Your task to perform on an android device: Open calendar and show me the third week of next month Image 0: 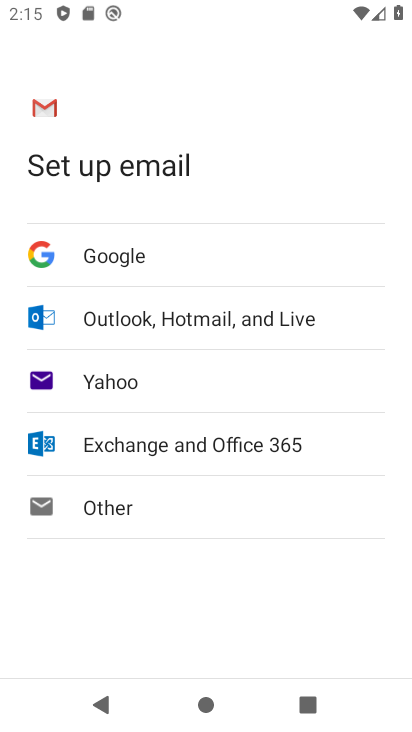
Step 0: press home button
Your task to perform on an android device: Open calendar and show me the third week of next month Image 1: 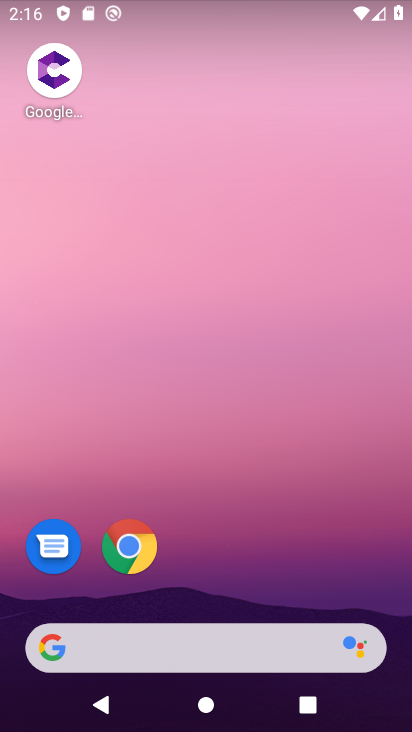
Step 1: drag from (195, 599) to (100, 82)
Your task to perform on an android device: Open calendar and show me the third week of next month Image 2: 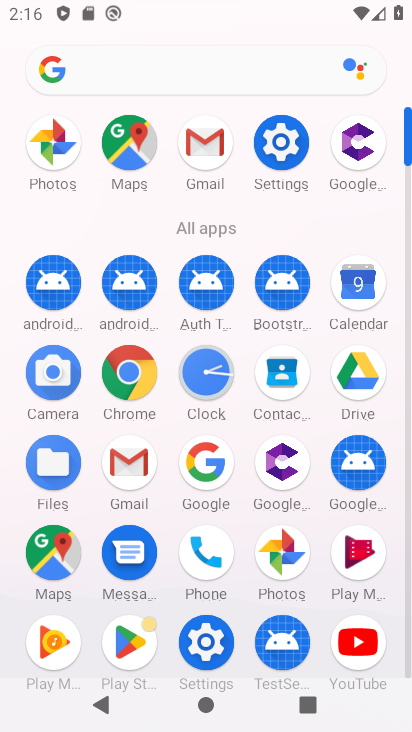
Step 2: click (350, 260)
Your task to perform on an android device: Open calendar and show me the third week of next month Image 3: 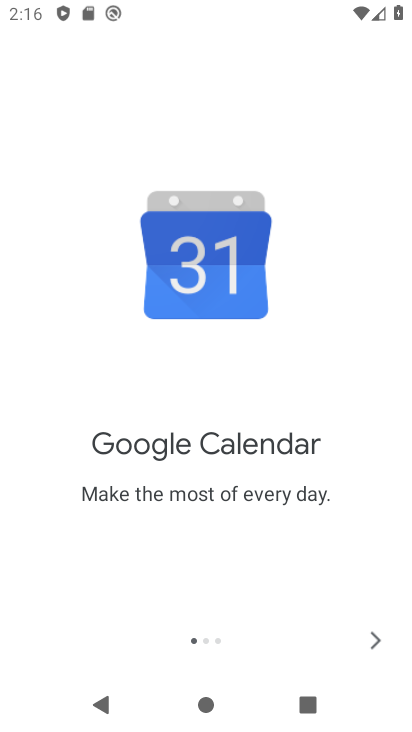
Step 3: click (371, 630)
Your task to perform on an android device: Open calendar and show me the third week of next month Image 4: 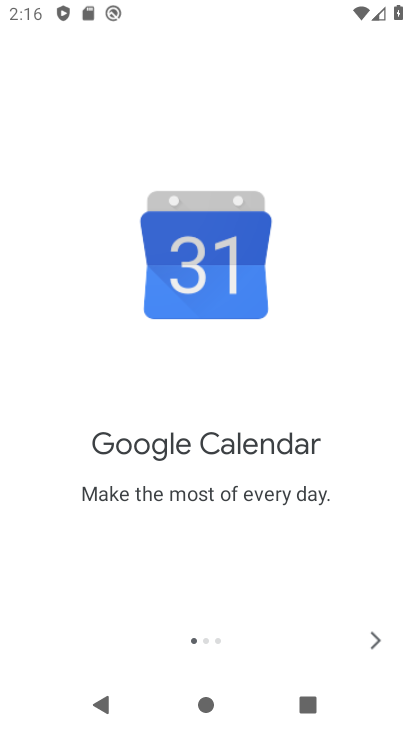
Step 4: click (371, 630)
Your task to perform on an android device: Open calendar and show me the third week of next month Image 5: 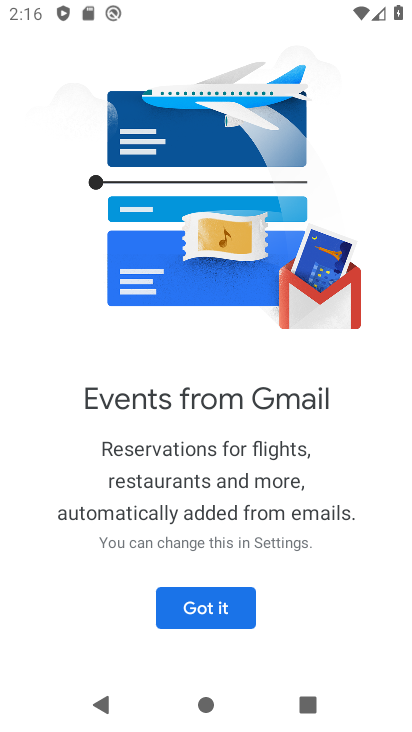
Step 5: click (371, 630)
Your task to perform on an android device: Open calendar and show me the third week of next month Image 6: 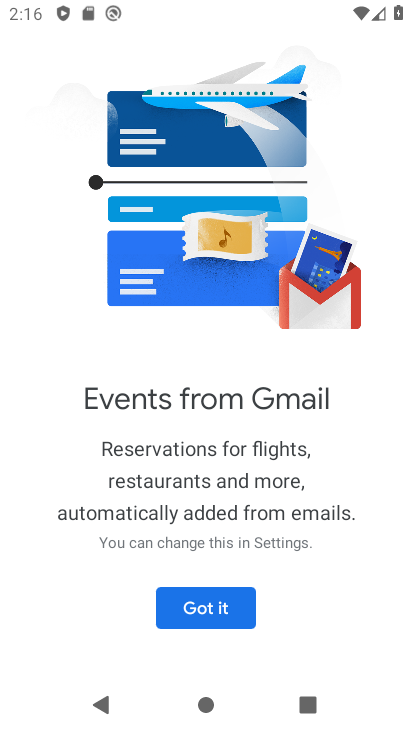
Step 6: click (227, 618)
Your task to perform on an android device: Open calendar and show me the third week of next month Image 7: 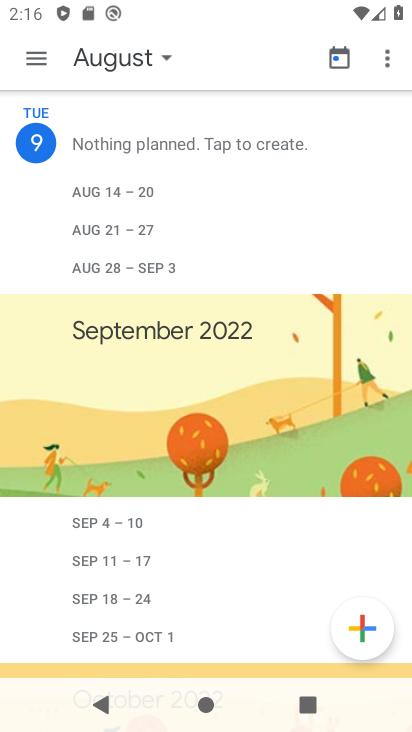
Step 7: click (154, 46)
Your task to perform on an android device: Open calendar and show me the third week of next month Image 8: 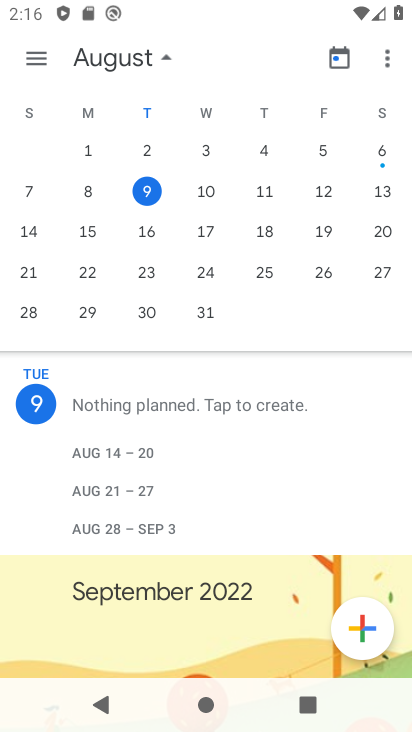
Step 8: drag from (316, 307) to (53, 291)
Your task to perform on an android device: Open calendar and show me the third week of next month Image 9: 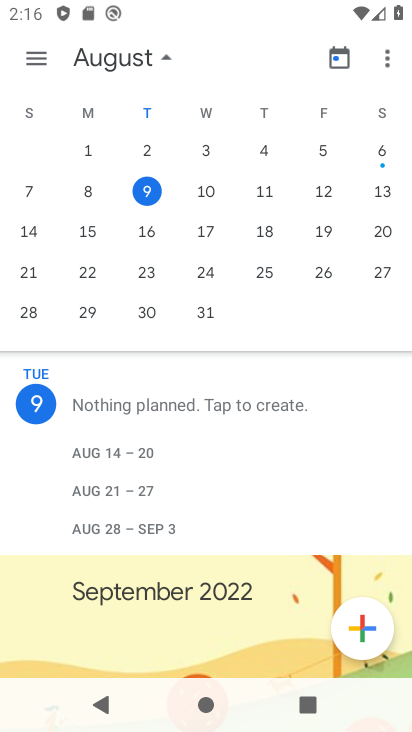
Step 9: drag from (331, 314) to (29, 243)
Your task to perform on an android device: Open calendar and show me the third week of next month Image 10: 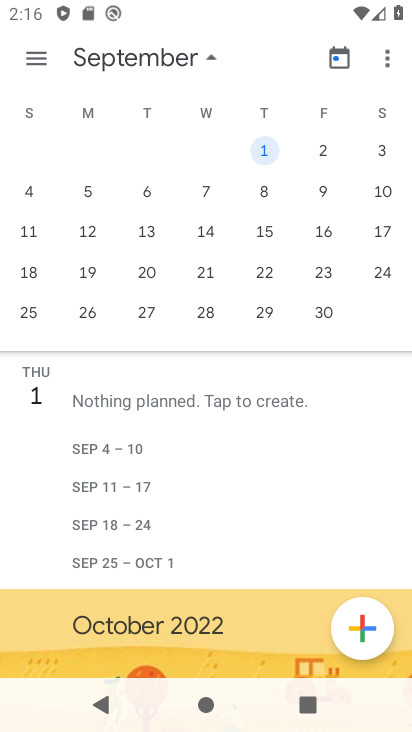
Step 10: click (333, 234)
Your task to perform on an android device: Open calendar and show me the third week of next month Image 11: 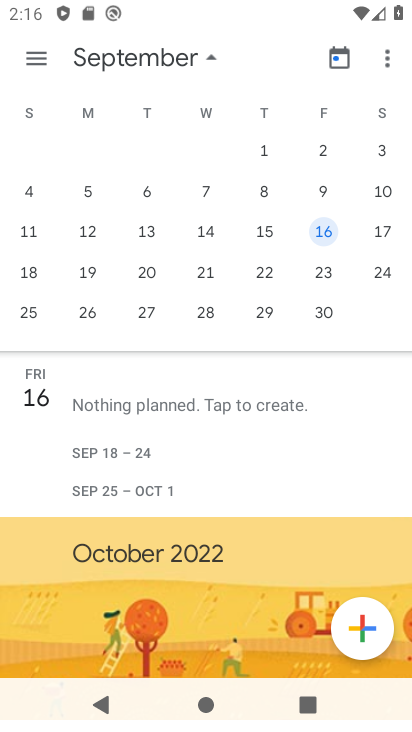
Step 11: task complete